Your task to perform on an android device: Open accessibility settings Image 0: 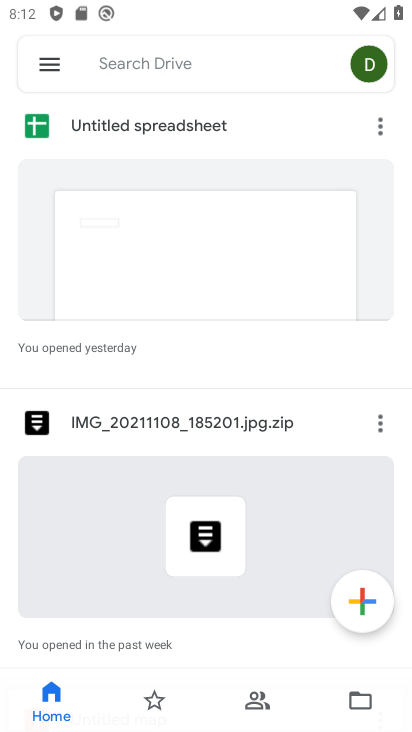
Step 0: press back button
Your task to perform on an android device: Open accessibility settings Image 1: 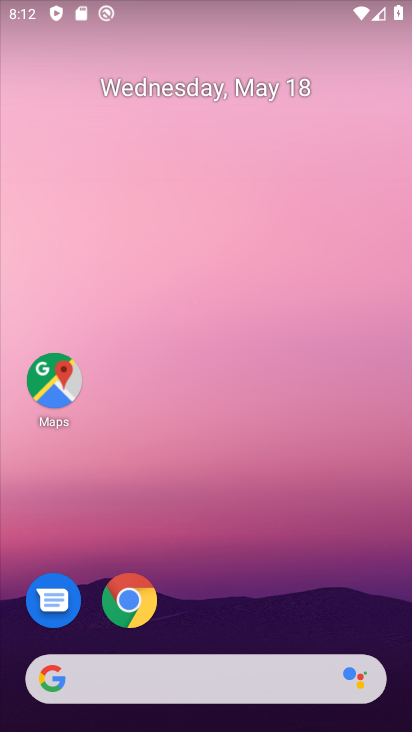
Step 1: drag from (208, 579) to (306, 14)
Your task to perform on an android device: Open accessibility settings Image 2: 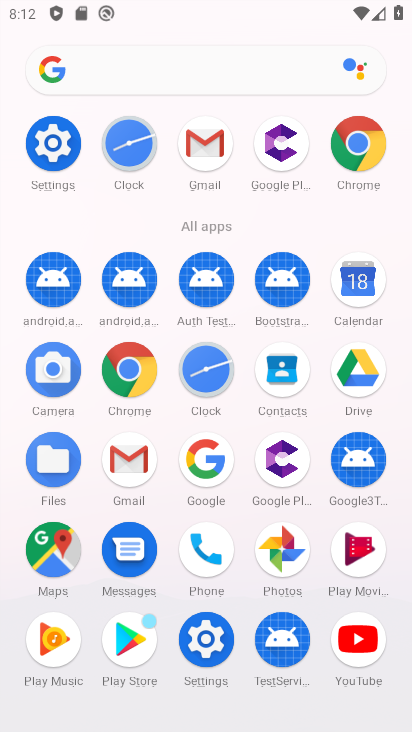
Step 2: click (60, 148)
Your task to perform on an android device: Open accessibility settings Image 3: 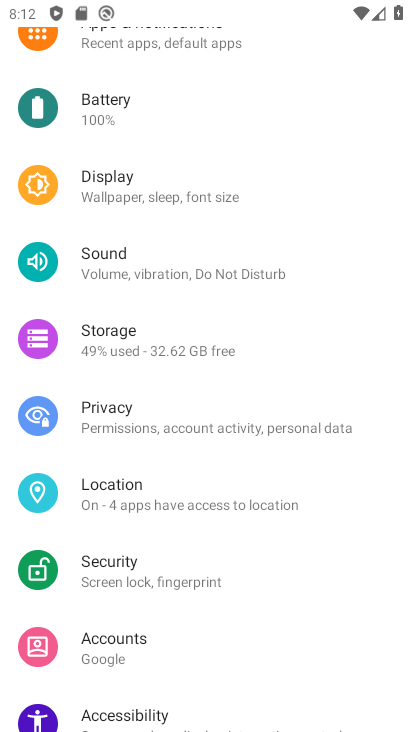
Step 3: click (148, 708)
Your task to perform on an android device: Open accessibility settings Image 4: 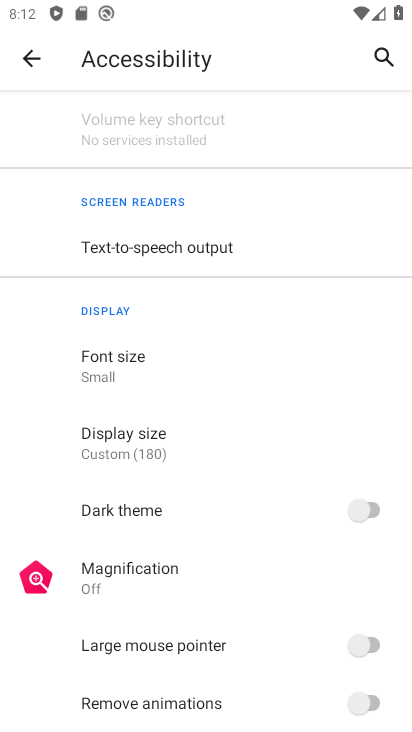
Step 4: task complete